Your task to perform on an android device: manage bookmarks in the chrome app Image 0: 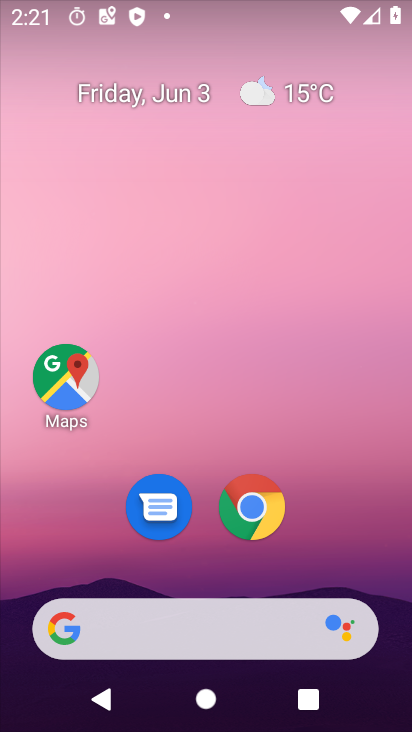
Step 0: drag from (402, 619) to (361, 94)
Your task to perform on an android device: manage bookmarks in the chrome app Image 1: 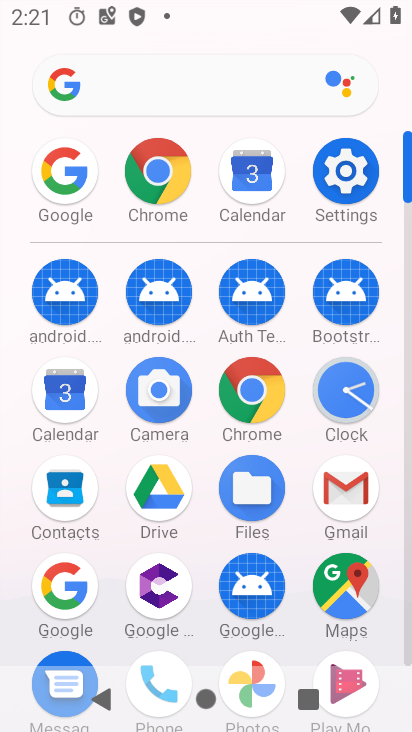
Step 1: click (265, 386)
Your task to perform on an android device: manage bookmarks in the chrome app Image 2: 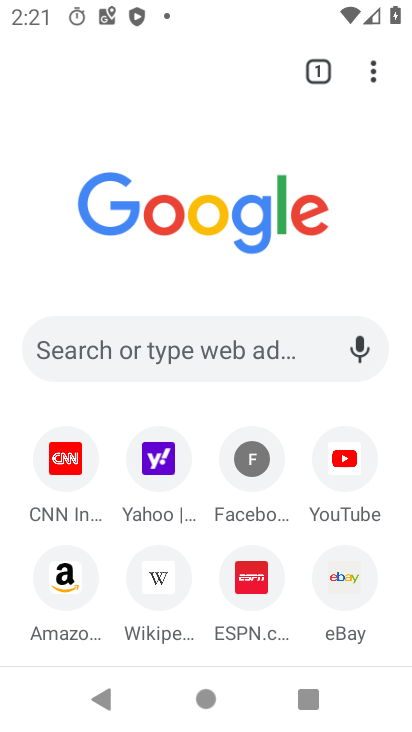
Step 2: click (378, 56)
Your task to perform on an android device: manage bookmarks in the chrome app Image 3: 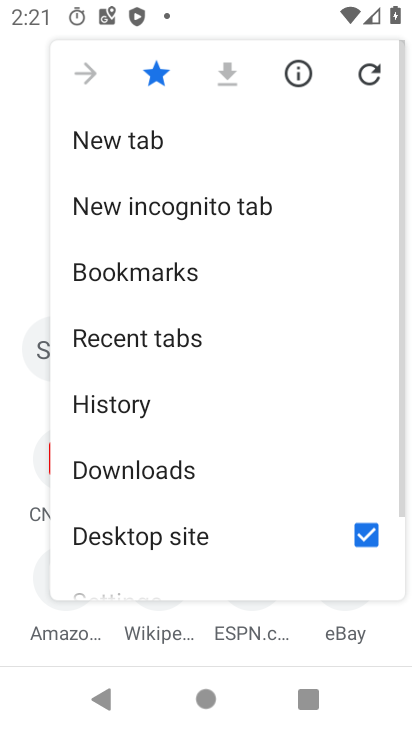
Step 3: click (195, 267)
Your task to perform on an android device: manage bookmarks in the chrome app Image 4: 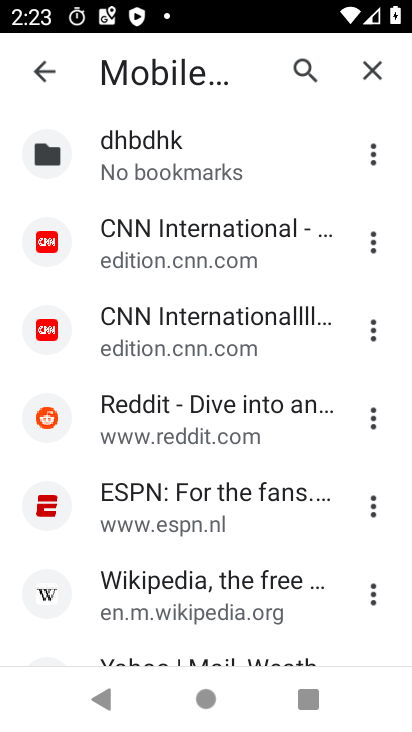
Step 4: task complete